Your task to perform on an android device: turn off priority inbox in the gmail app Image 0: 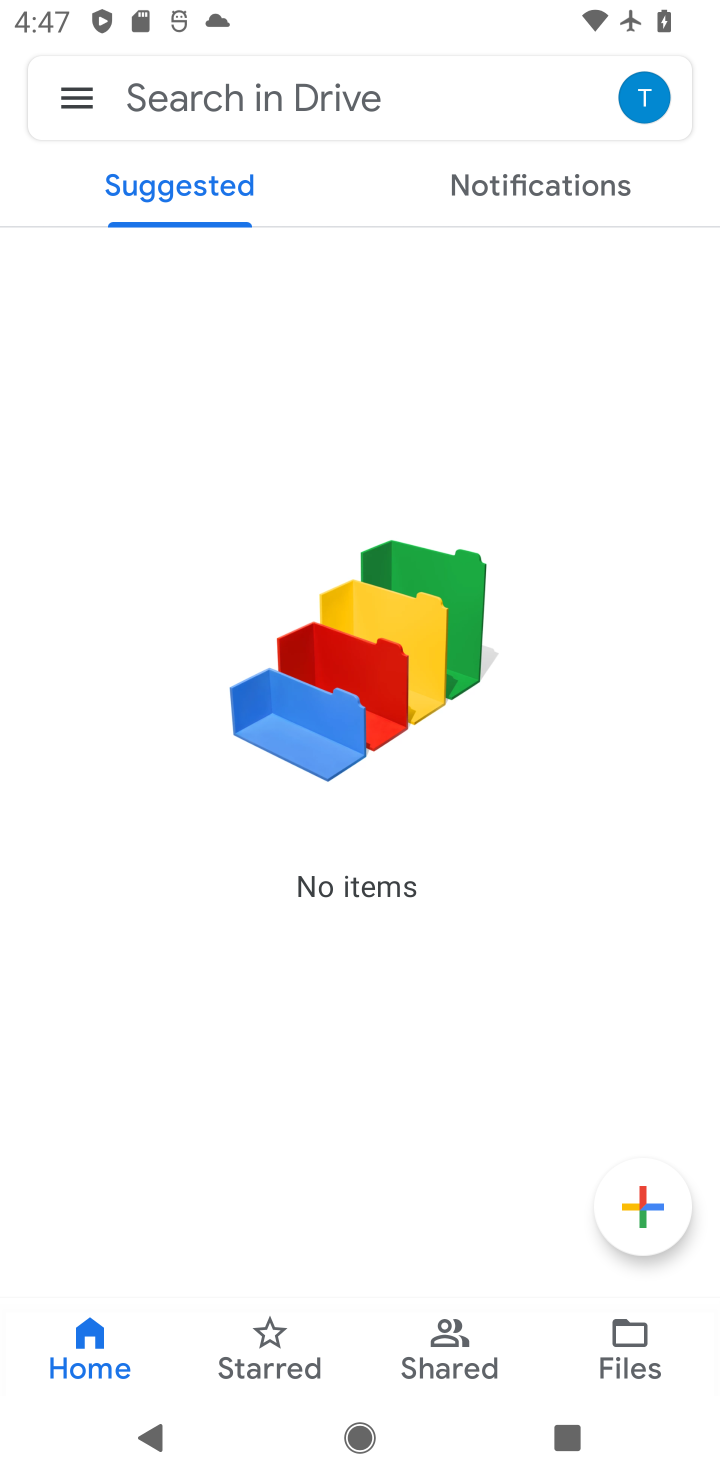
Step 0: press back button
Your task to perform on an android device: turn off priority inbox in the gmail app Image 1: 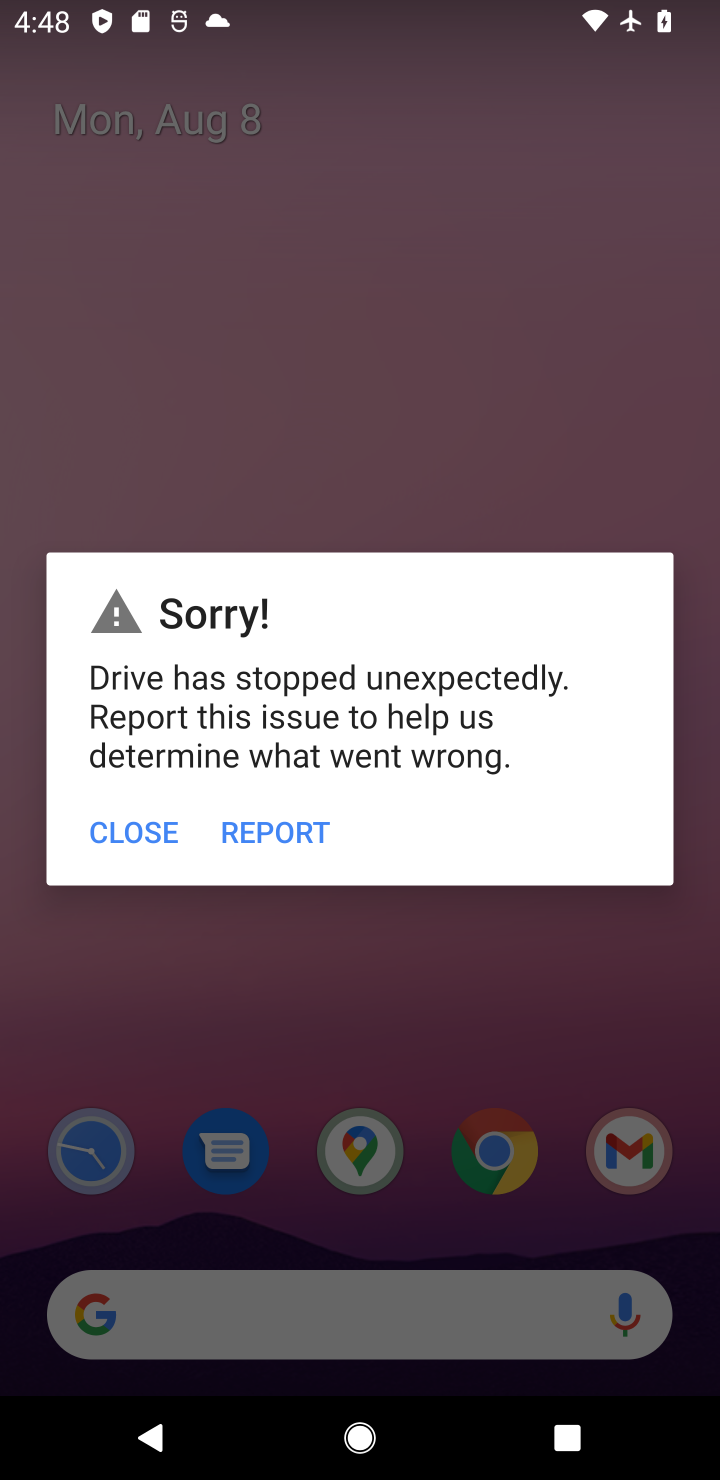
Step 1: click (155, 832)
Your task to perform on an android device: turn off priority inbox in the gmail app Image 2: 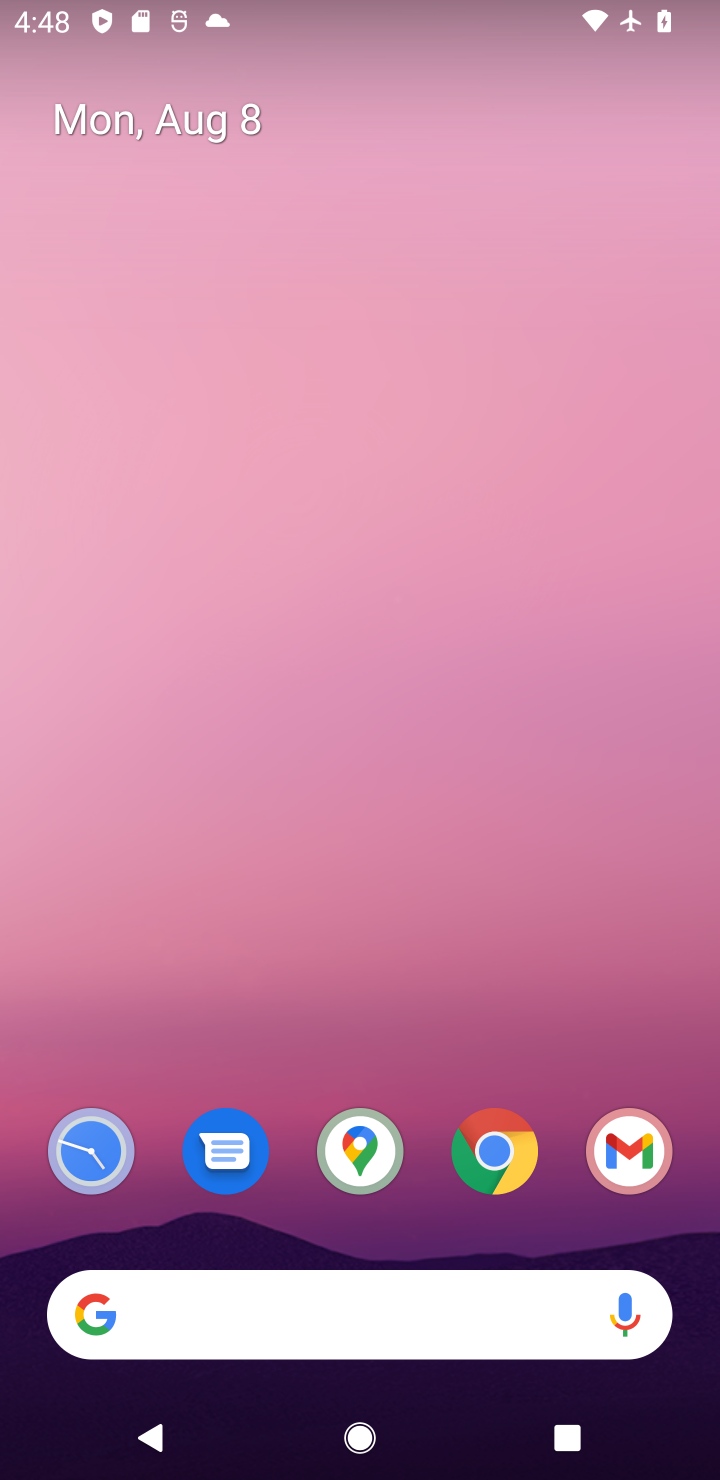
Step 2: click (617, 1138)
Your task to perform on an android device: turn off priority inbox in the gmail app Image 3: 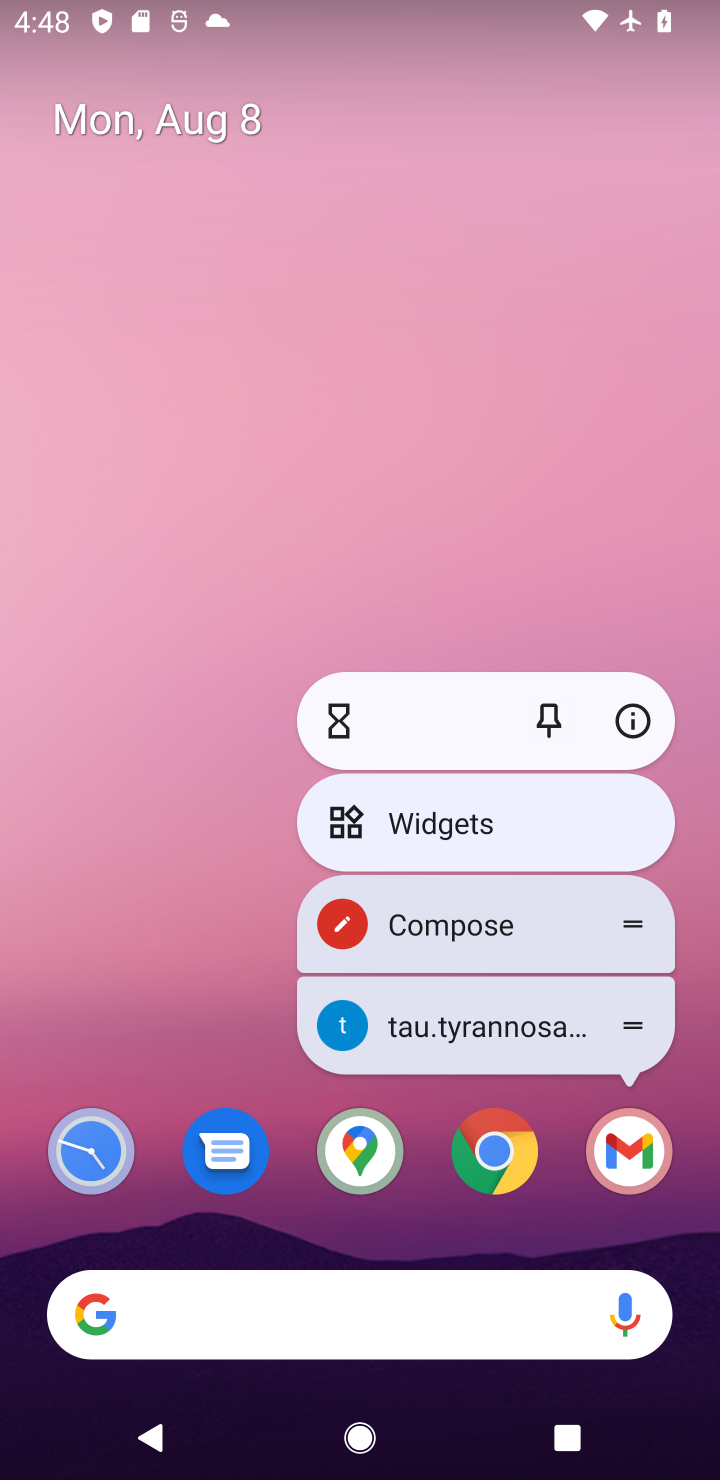
Step 3: click (639, 1173)
Your task to perform on an android device: turn off priority inbox in the gmail app Image 4: 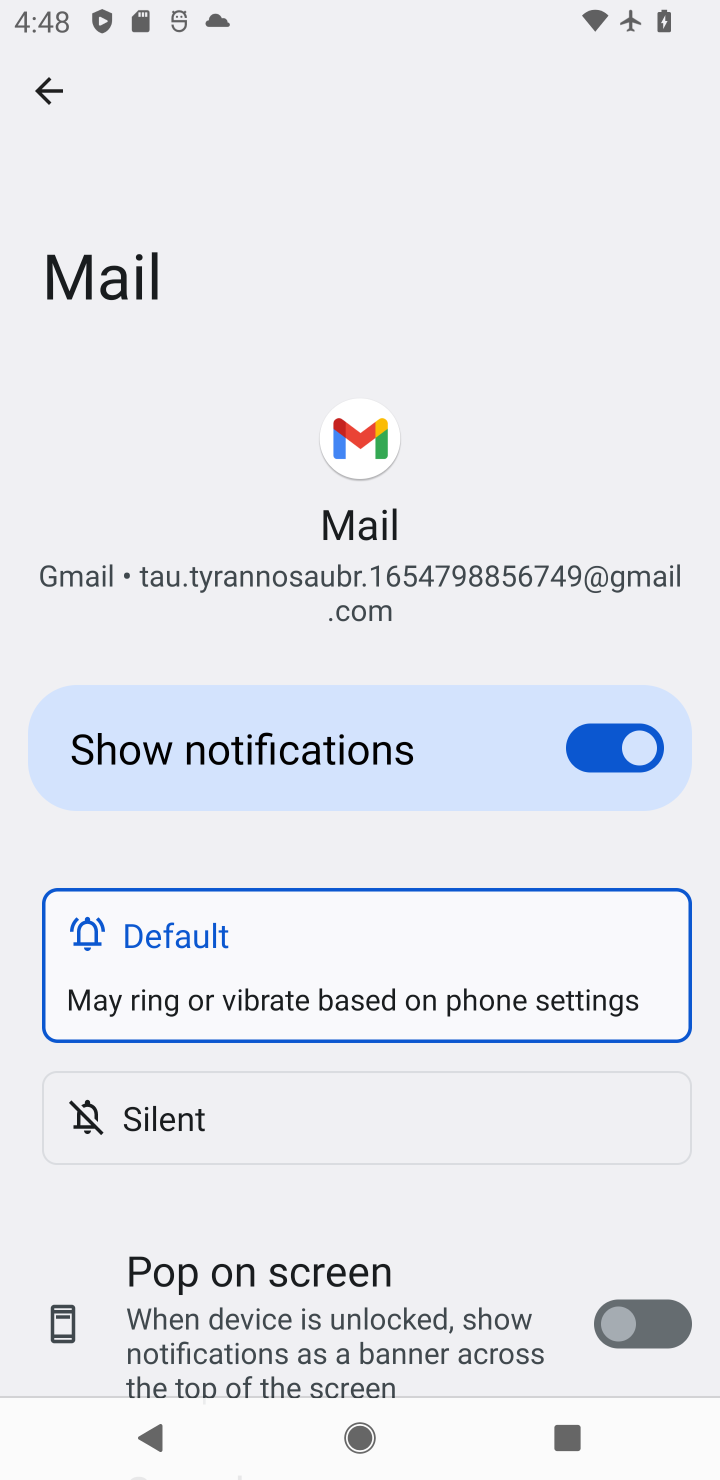
Step 4: drag from (358, 1249) to (358, 312)
Your task to perform on an android device: turn off priority inbox in the gmail app Image 5: 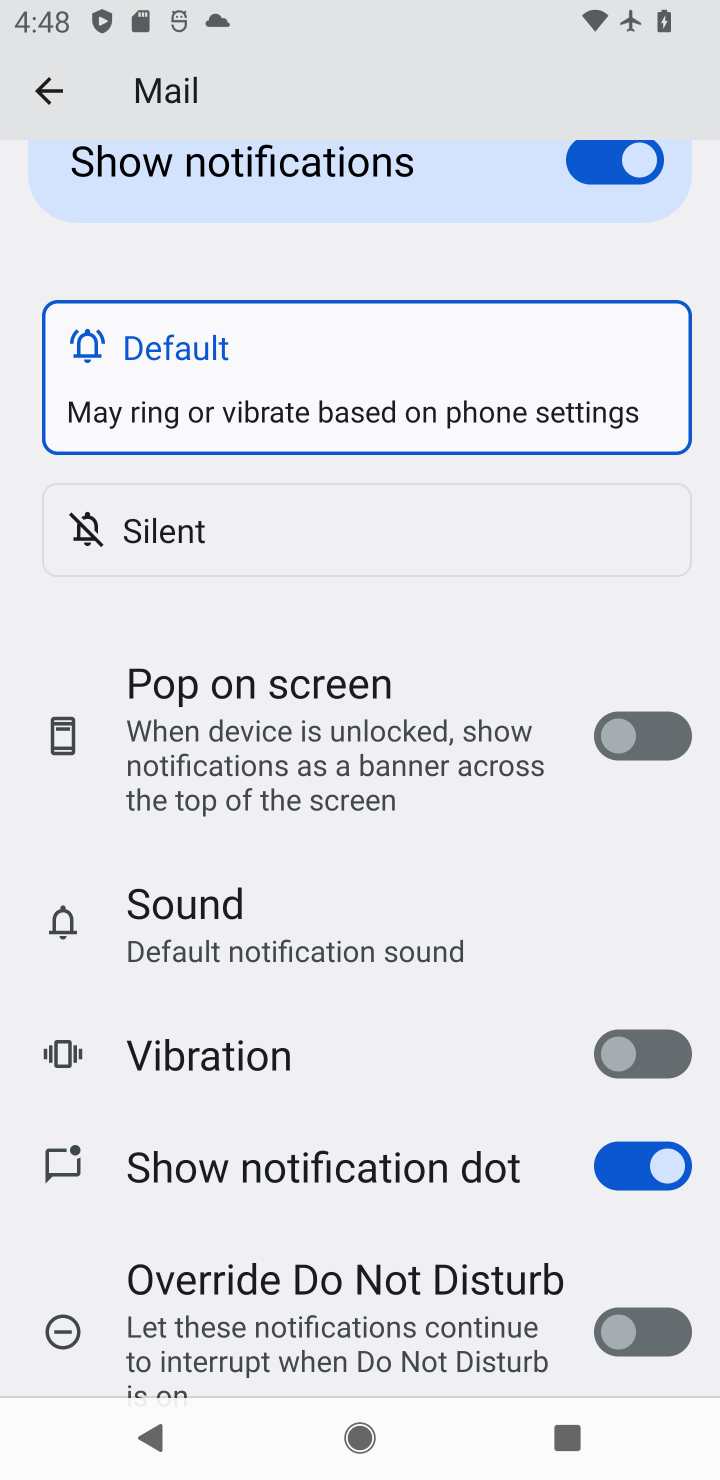
Step 5: click (50, 89)
Your task to perform on an android device: turn off priority inbox in the gmail app Image 6: 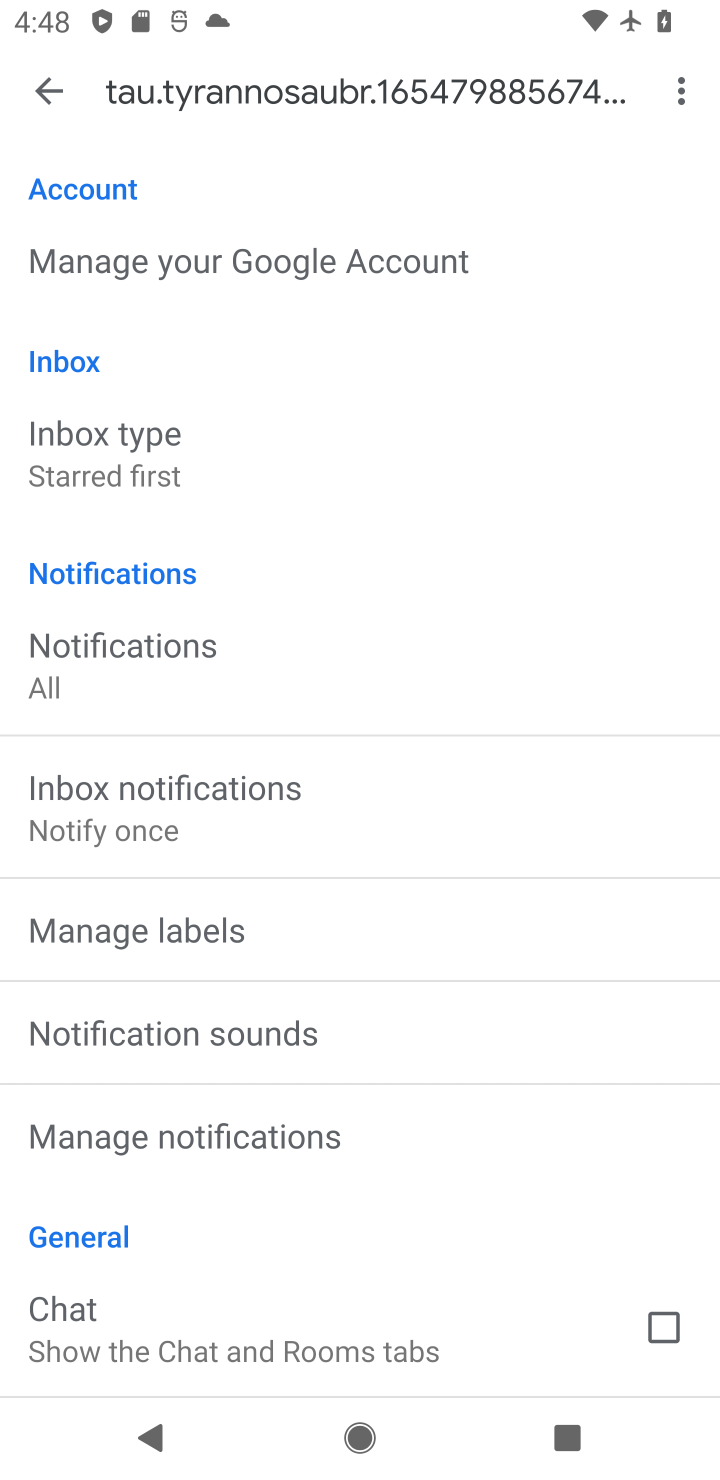
Step 6: click (268, 486)
Your task to perform on an android device: turn off priority inbox in the gmail app Image 7: 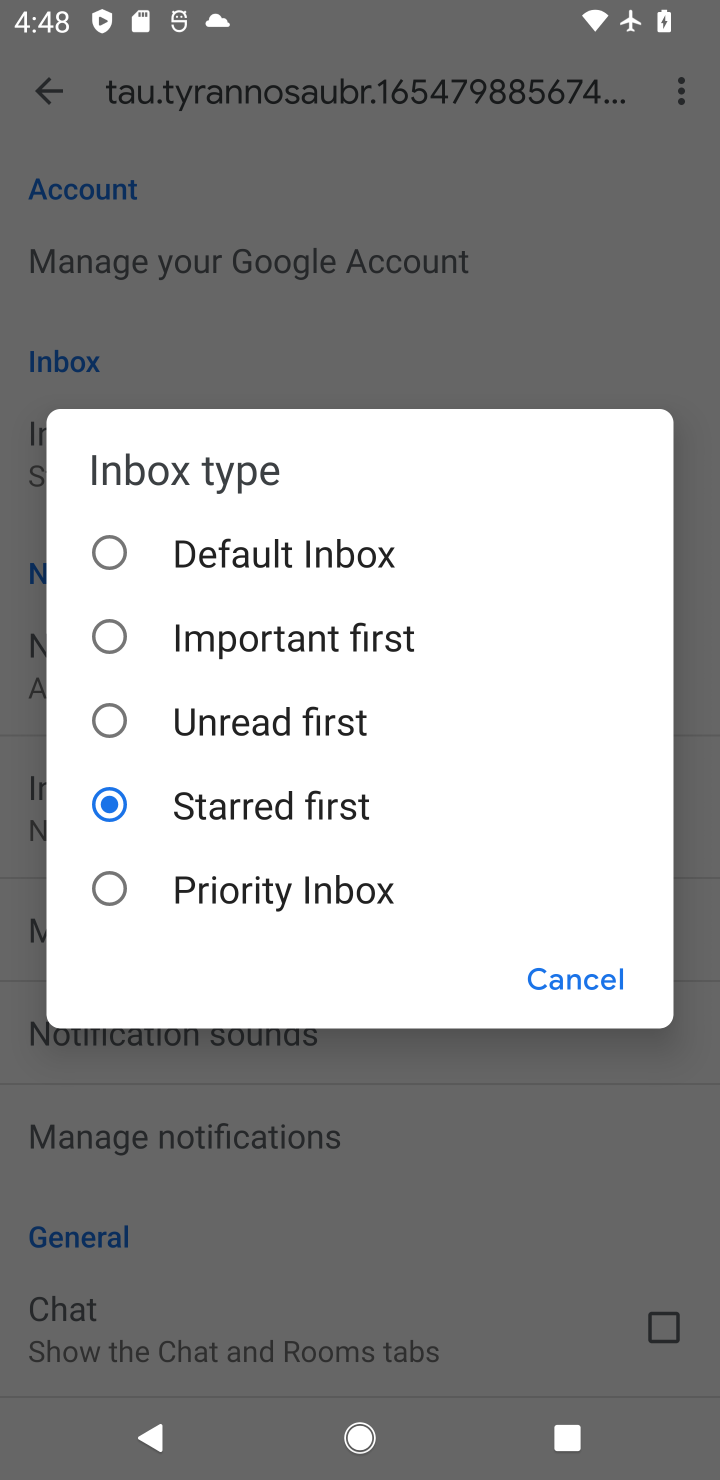
Step 7: task complete